Your task to perform on an android device: find which apps use the phone's location Image 0: 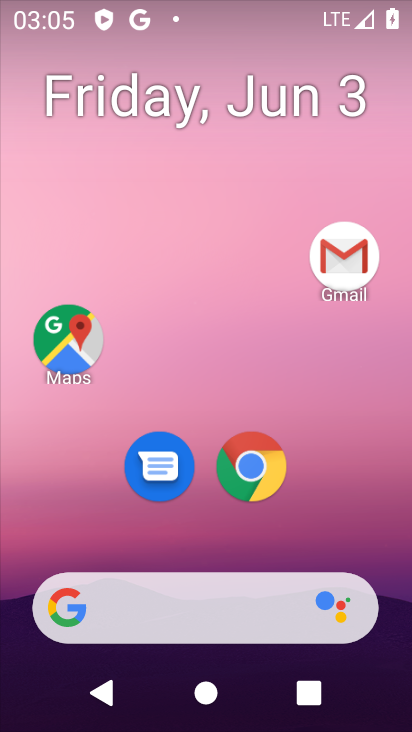
Step 0: drag from (191, 546) to (212, 133)
Your task to perform on an android device: find which apps use the phone's location Image 1: 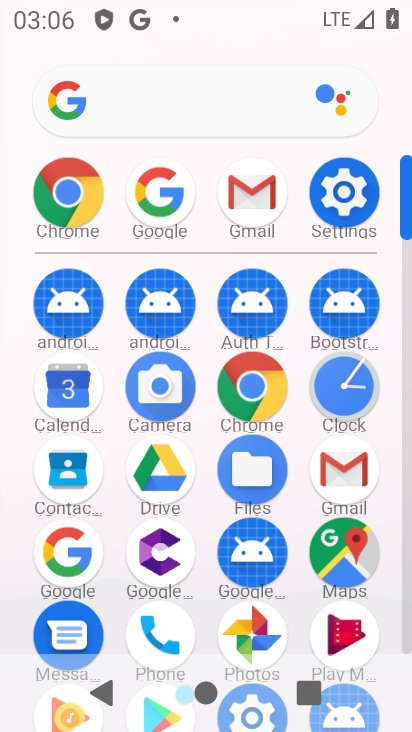
Step 1: drag from (204, 613) to (172, 191)
Your task to perform on an android device: find which apps use the phone's location Image 2: 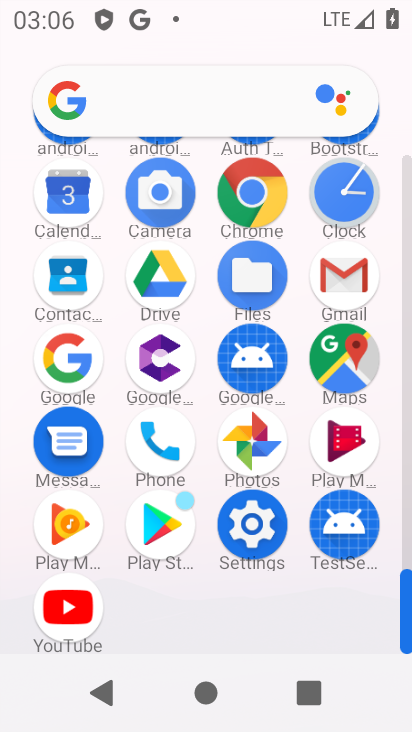
Step 2: drag from (196, 267) to (185, 727)
Your task to perform on an android device: find which apps use the phone's location Image 3: 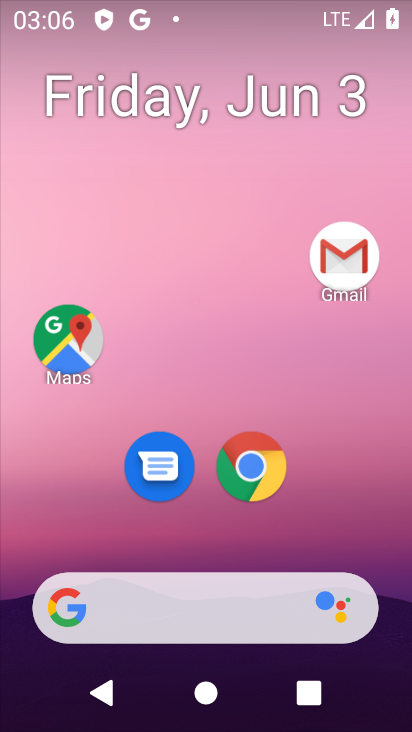
Step 3: drag from (198, 544) to (82, 38)
Your task to perform on an android device: find which apps use the phone's location Image 4: 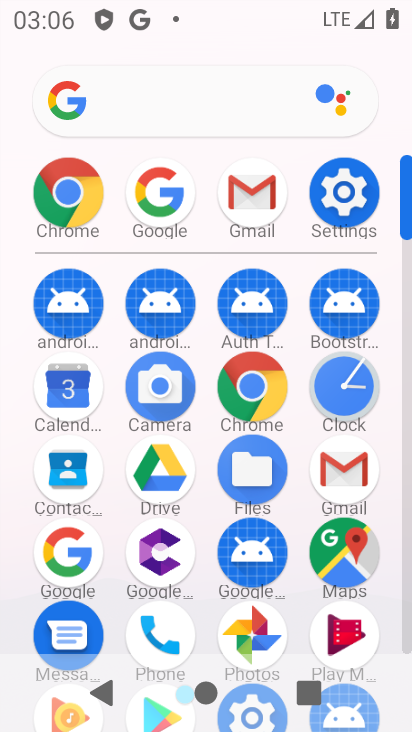
Step 4: drag from (189, 612) to (148, 275)
Your task to perform on an android device: find which apps use the phone's location Image 5: 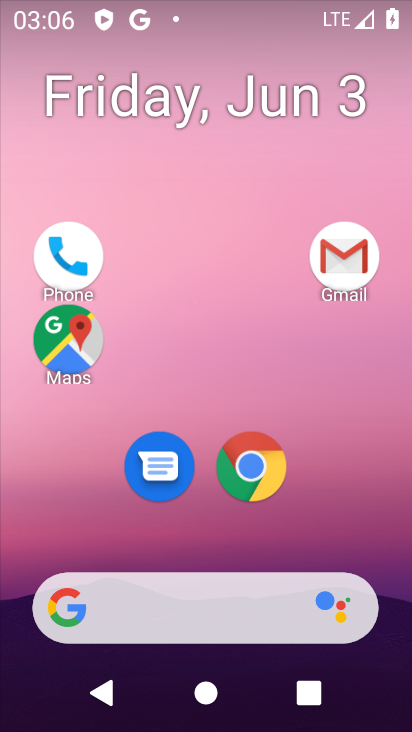
Step 5: drag from (211, 532) to (152, 194)
Your task to perform on an android device: find which apps use the phone's location Image 6: 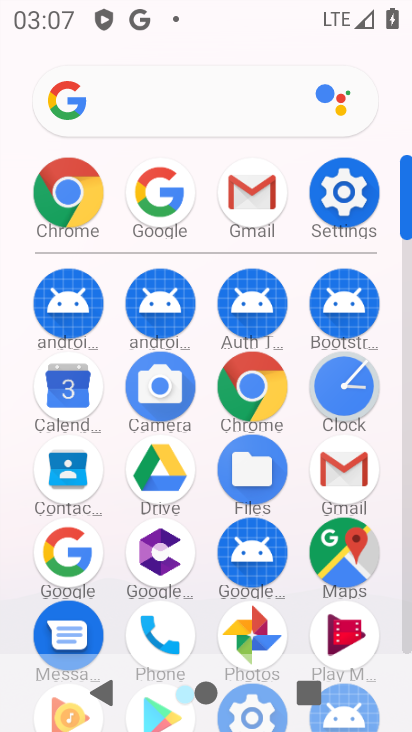
Step 6: click (342, 199)
Your task to perform on an android device: find which apps use the phone's location Image 7: 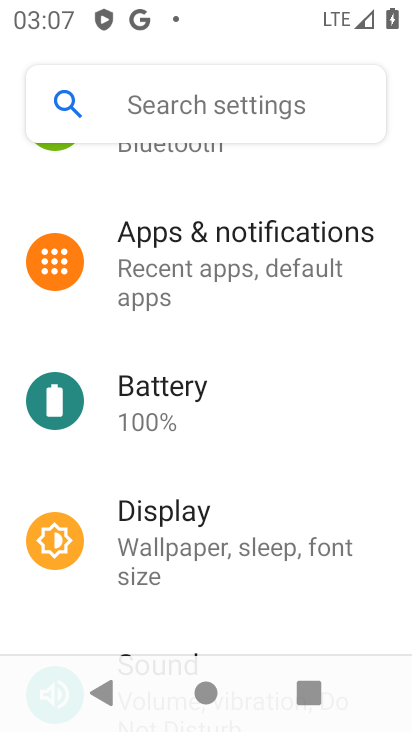
Step 7: drag from (227, 577) to (239, 171)
Your task to perform on an android device: find which apps use the phone's location Image 8: 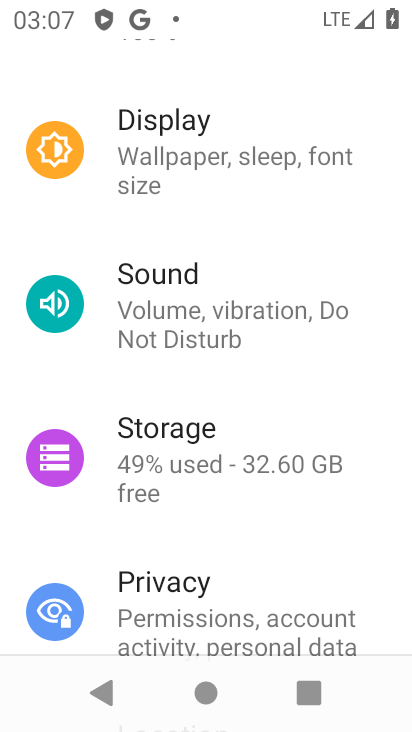
Step 8: drag from (224, 532) to (228, 213)
Your task to perform on an android device: find which apps use the phone's location Image 9: 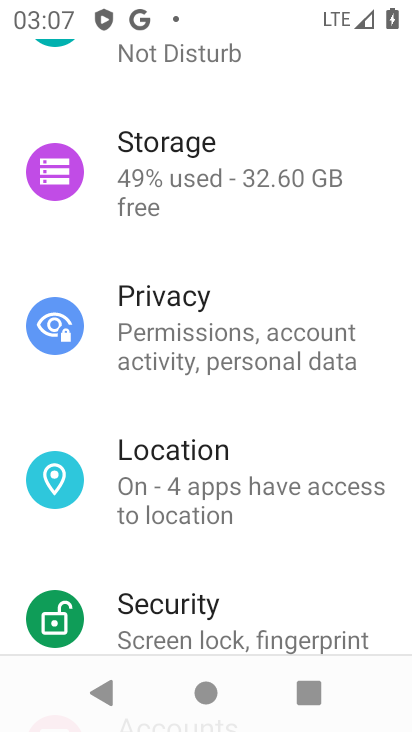
Step 9: click (213, 462)
Your task to perform on an android device: find which apps use the phone's location Image 10: 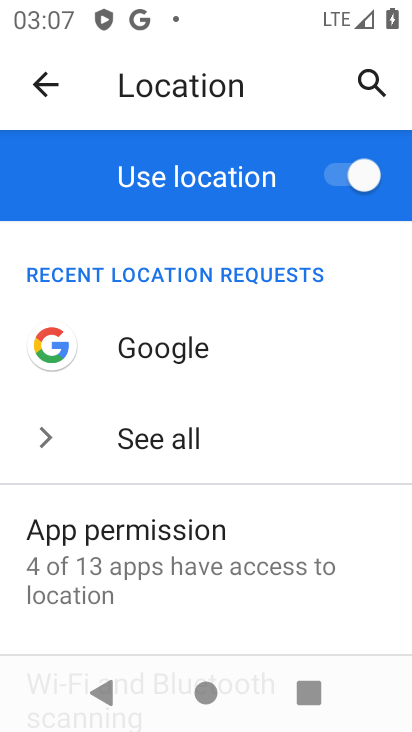
Step 10: click (223, 560)
Your task to perform on an android device: find which apps use the phone's location Image 11: 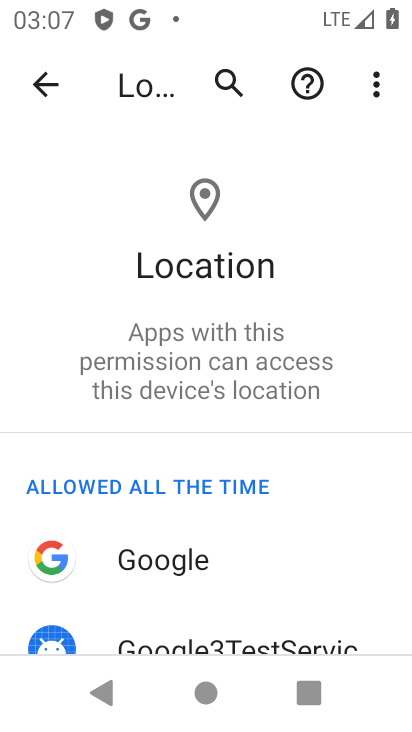
Step 11: task complete